Your task to perform on an android device: turn smart compose on in the gmail app Image 0: 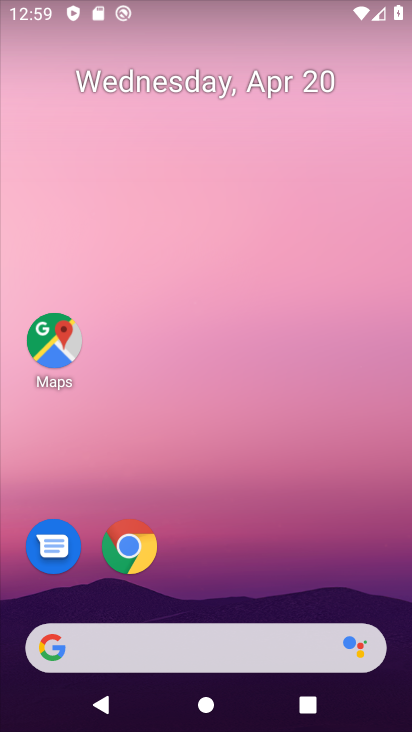
Step 0: drag from (255, 516) to (283, 259)
Your task to perform on an android device: turn smart compose on in the gmail app Image 1: 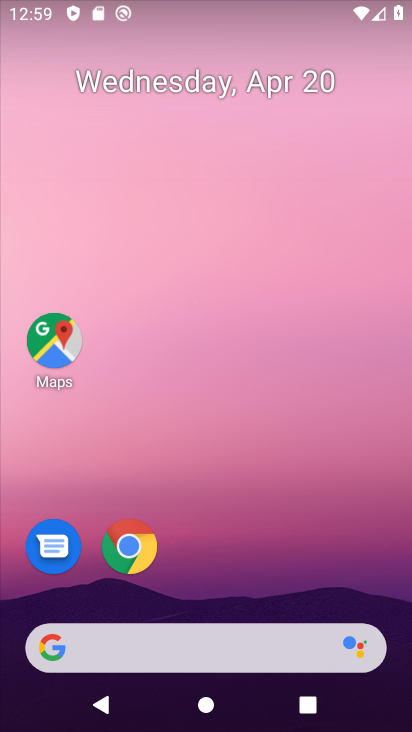
Step 1: drag from (284, 589) to (295, 152)
Your task to perform on an android device: turn smart compose on in the gmail app Image 2: 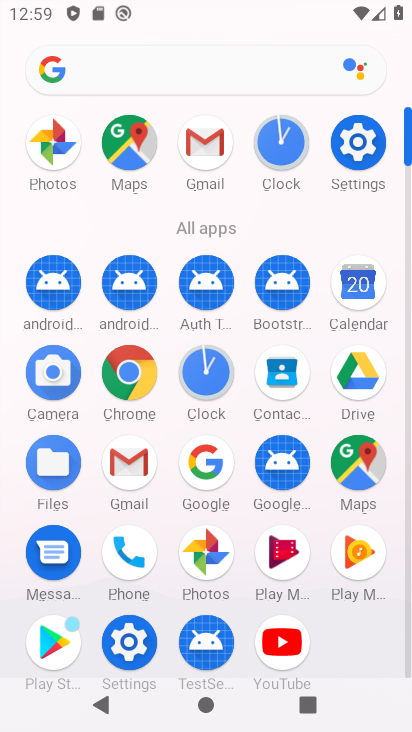
Step 2: click (201, 147)
Your task to perform on an android device: turn smart compose on in the gmail app Image 3: 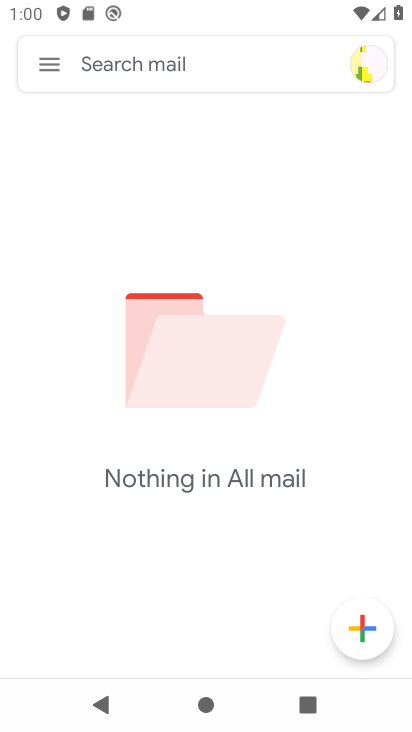
Step 3: click (38, 56)
Your task to perform on an android device: turn smart compose on in the gmail app Image 4: 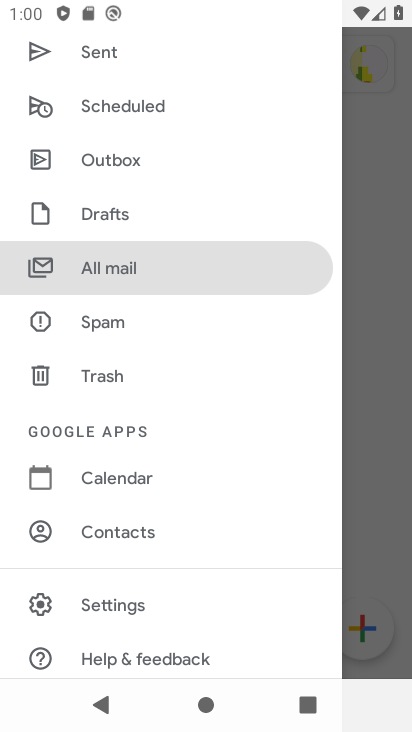
Step 4: drag from (198, 536) to (239, 145)
Your task to perform on an android device: turn smart compose on in the gmail app Image 5: 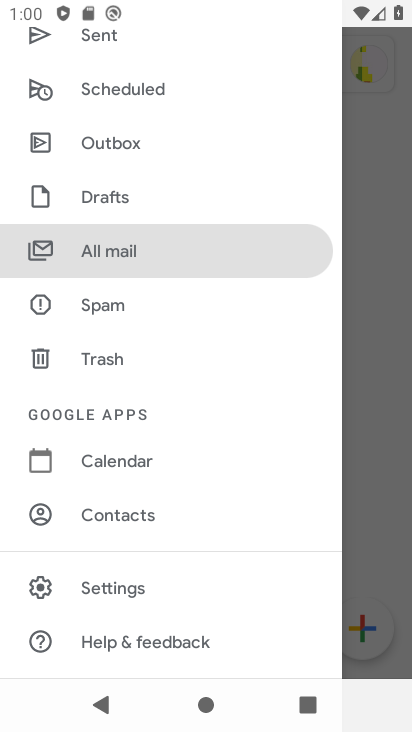
Step 5: click (143, 582)
Your task to perform on an android device: turn smart compose on in the gmail app Image 6: 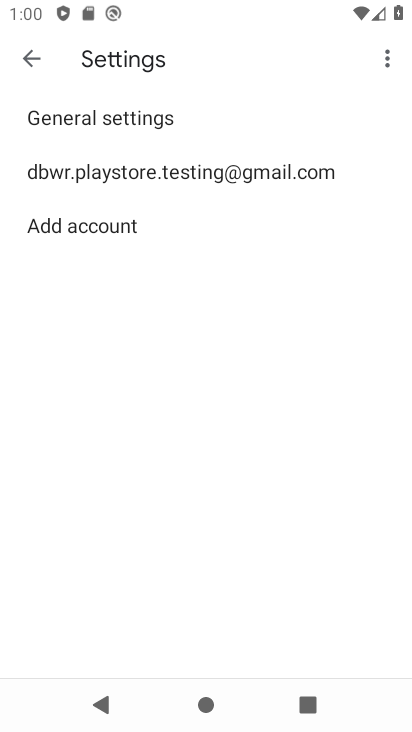
Step 6: click (290, 177)
Your task to perform on an android device: turn smart compose on in the gmail app Image 7: 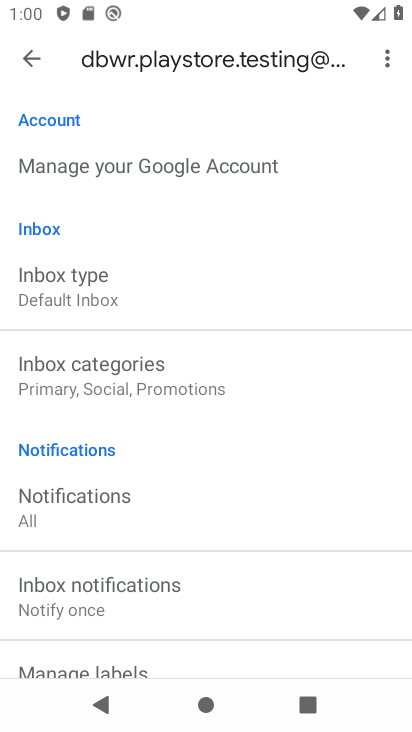
Step 7: task complete